Your task to perform on an android device: open a bookmark in the chrome app Image 0: 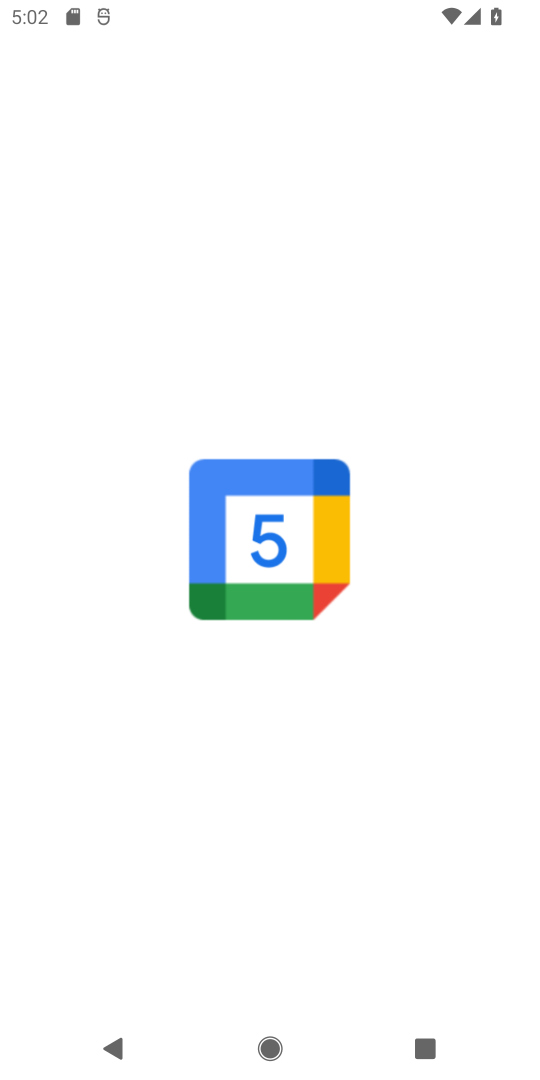
Step 0: press home button
Your task to perform on an android device: open a bookmark in the chrome app Image 1: 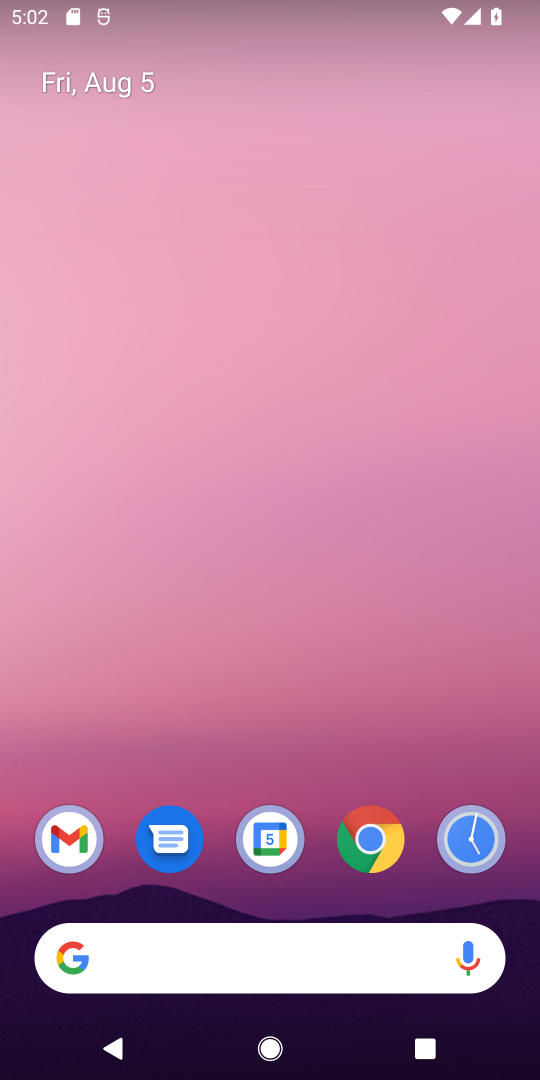
Step 1: click (368, 846)
Your task to perform on an android device: open a bookmark in the chrome app Image 2: 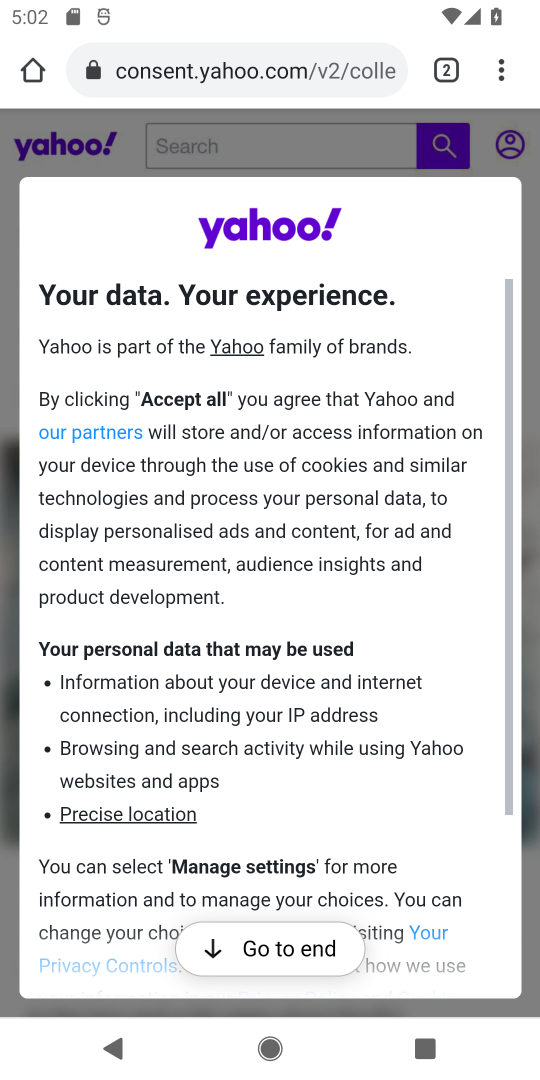
Step 2: click (501, 72)
Your task to perform on an android device: open a bookmark in the chrome app Image 3: 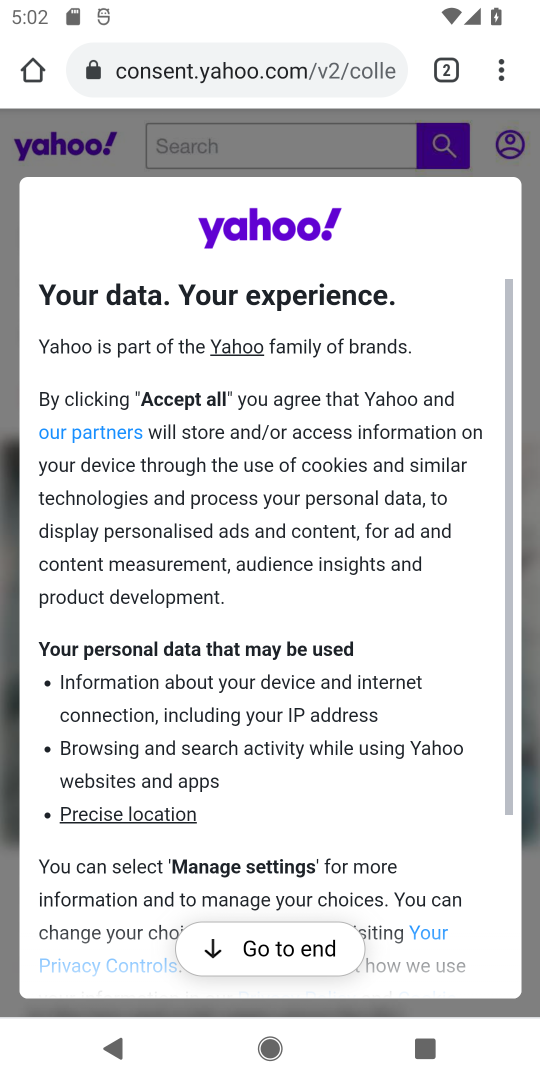
Step 3: click (501, 72)
Your task to perform on an android device: open a bookmark in the chrome app Image 4: 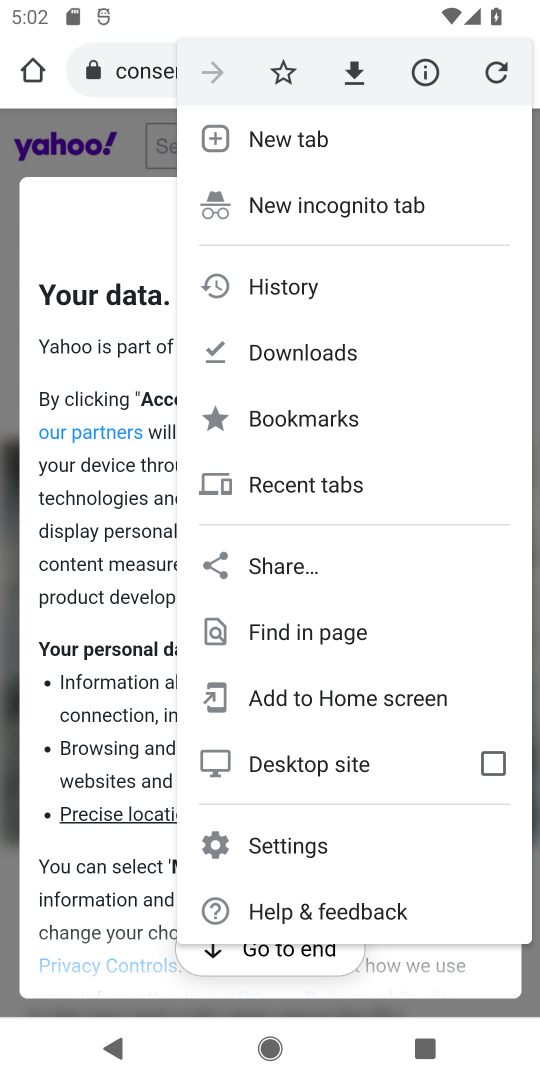
Step 4: click (338, 420)
Your task to perform on an android device: open a bookmark in the chrome app Image 5: 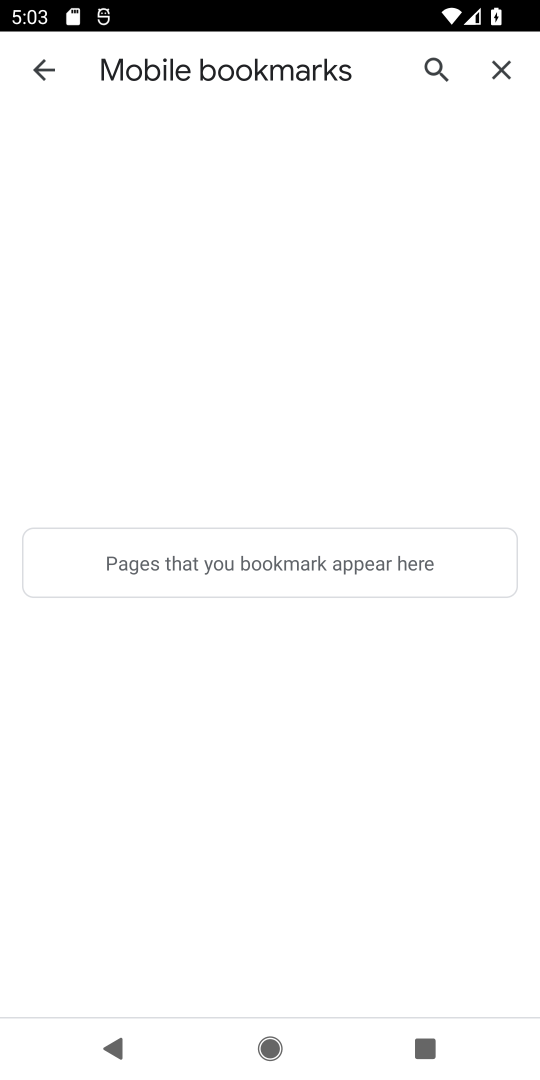
Step 5: task complete